Your task to perform on an android device: open sync settings in chrome Image 0: 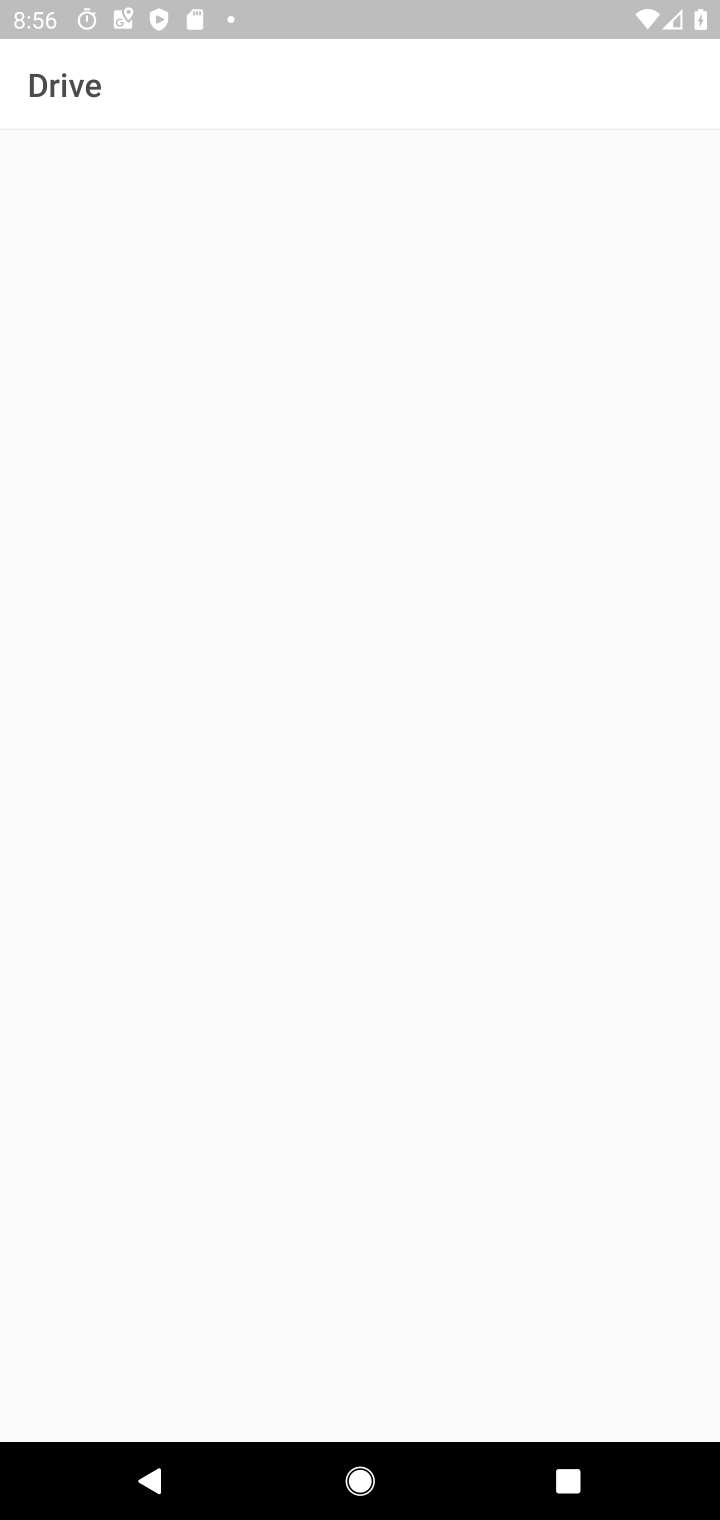
Step 0: press home button
Your task to perform on an android device: open sync settings in chrome Image 1: 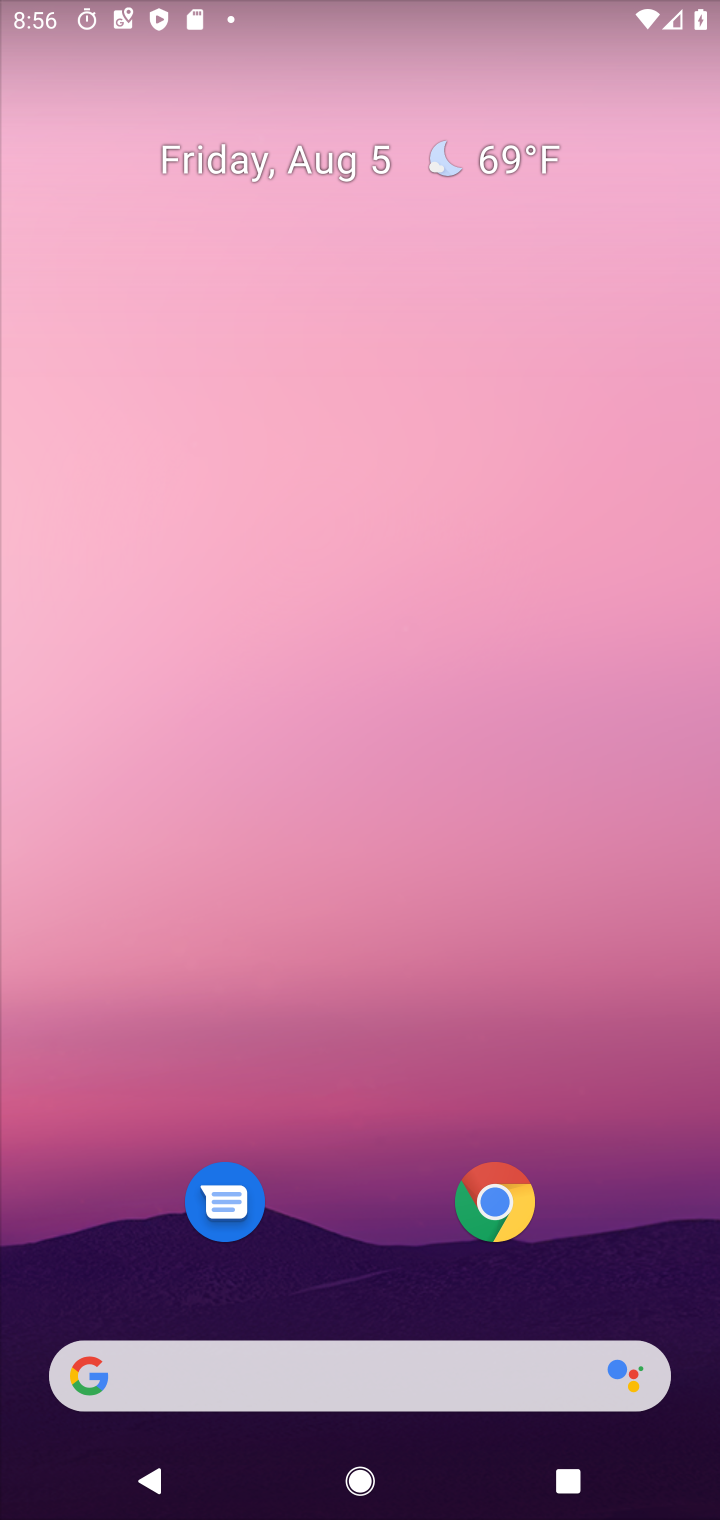
Step 1: click (524, 1193)
Your task to perform on an android device: open sync settings in chrome Image 2: 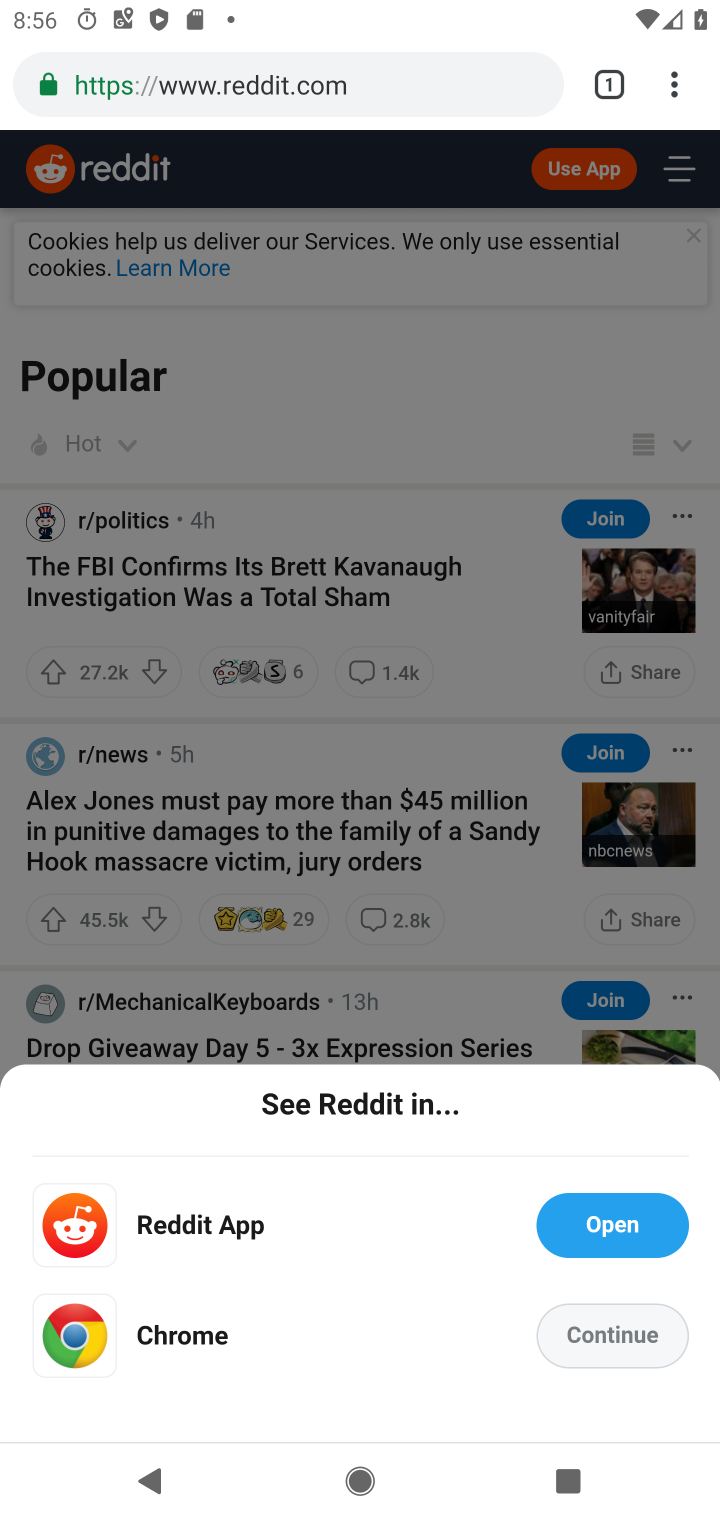
Step 2: click (686, 66)
Your task to perform on an android device: open sync settings in chrome Image 3: 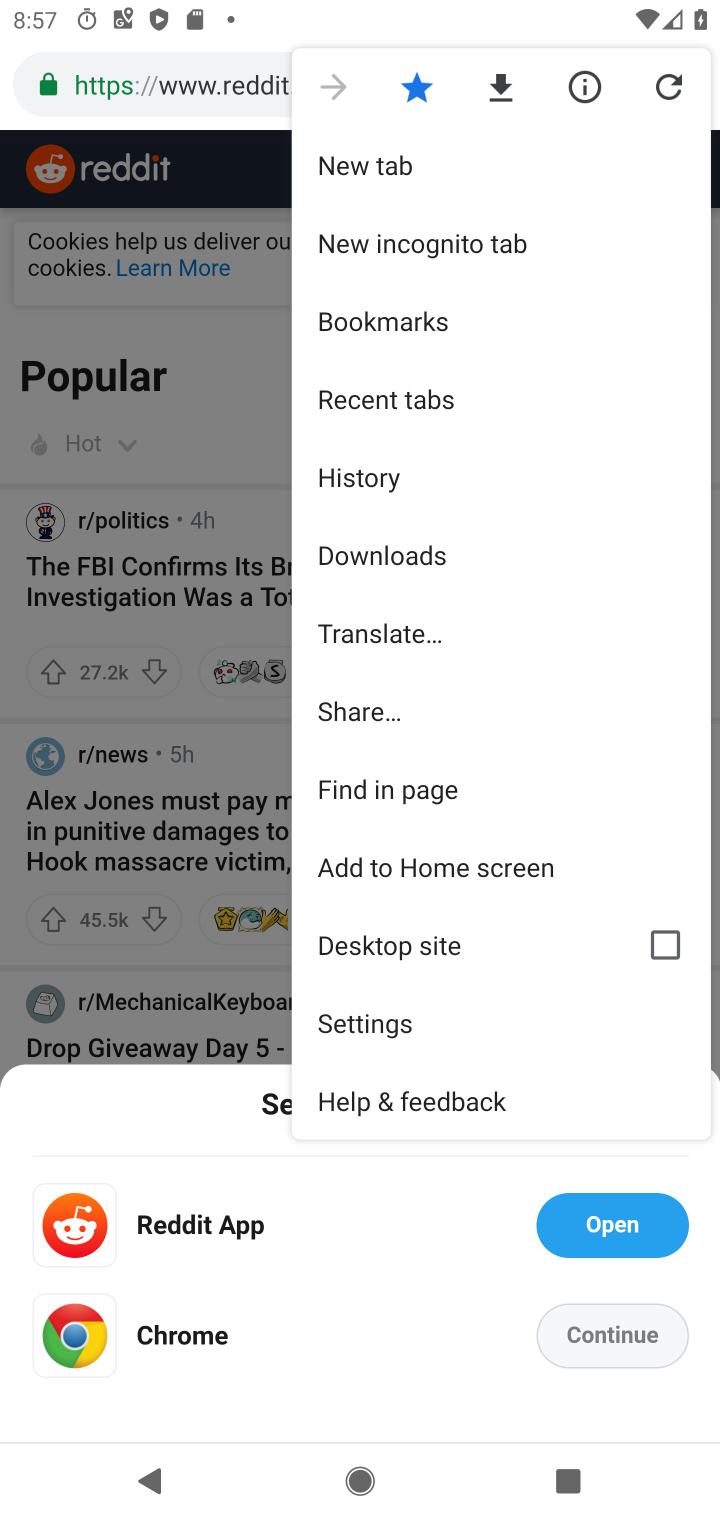
Step 3: click (372, 1009)
Your task to perform on an android device: open sync settings in chrome Image 4: 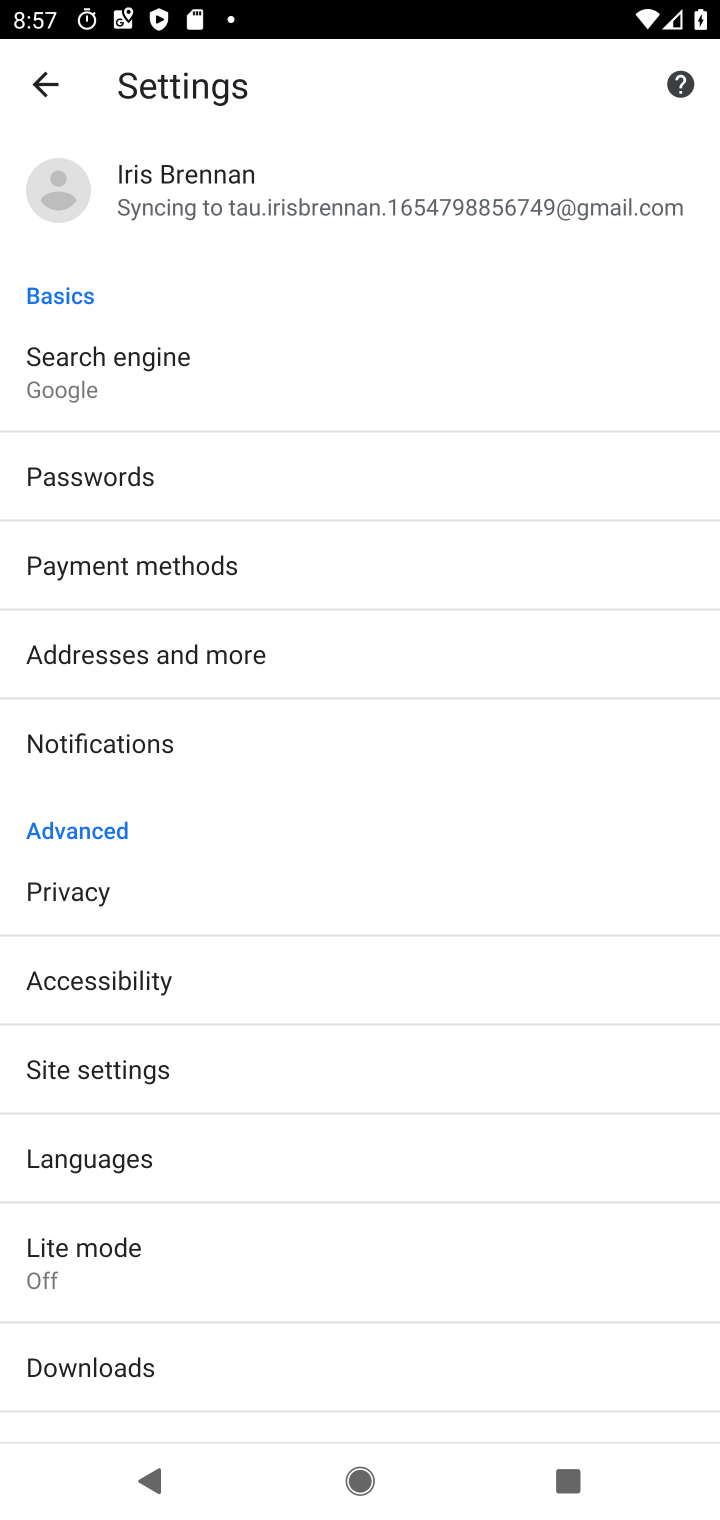
Step 4: click (190, 215)
Your task to perform on an android device: open sync settings in chrome Image 5: 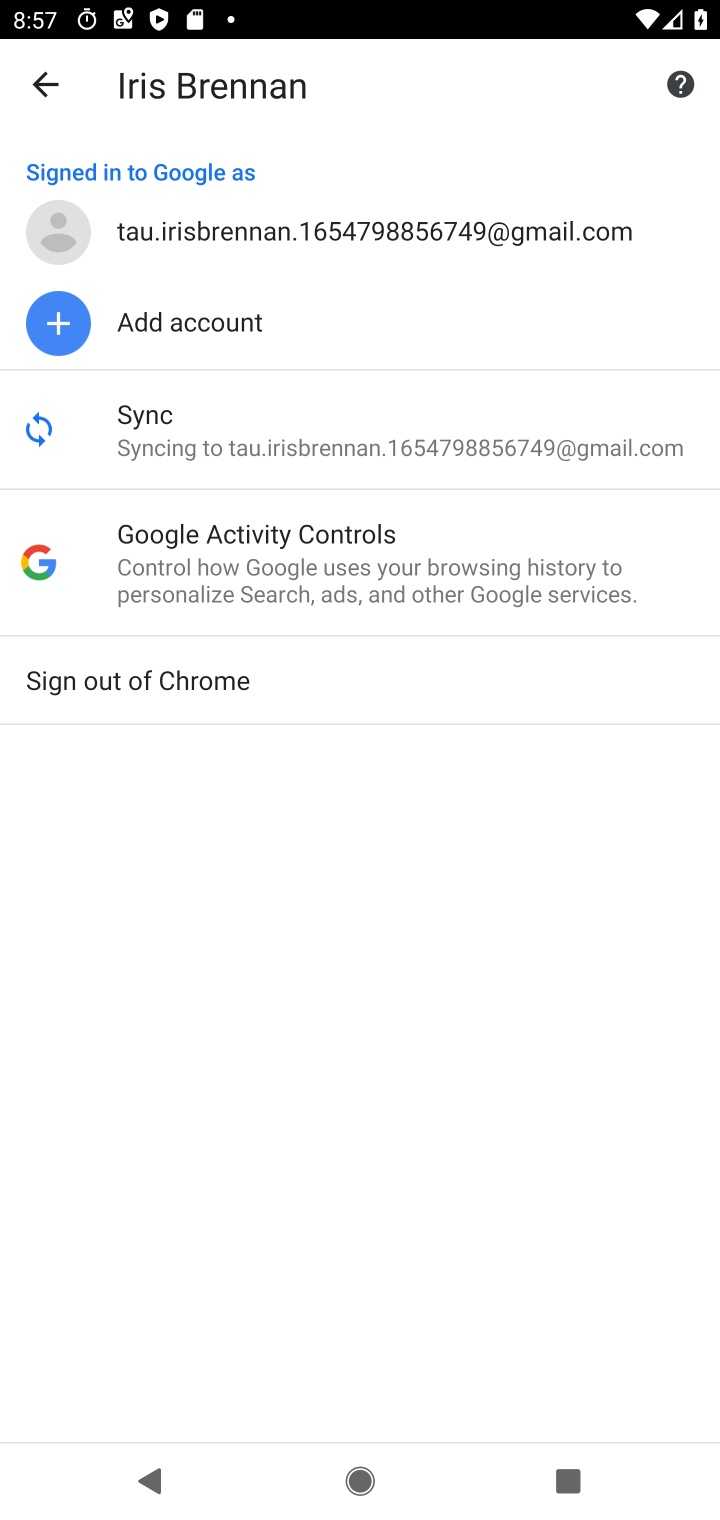
Step 5: click (197, 458)
Your task to perform on an android device: open sync settings in chrome Image 6: 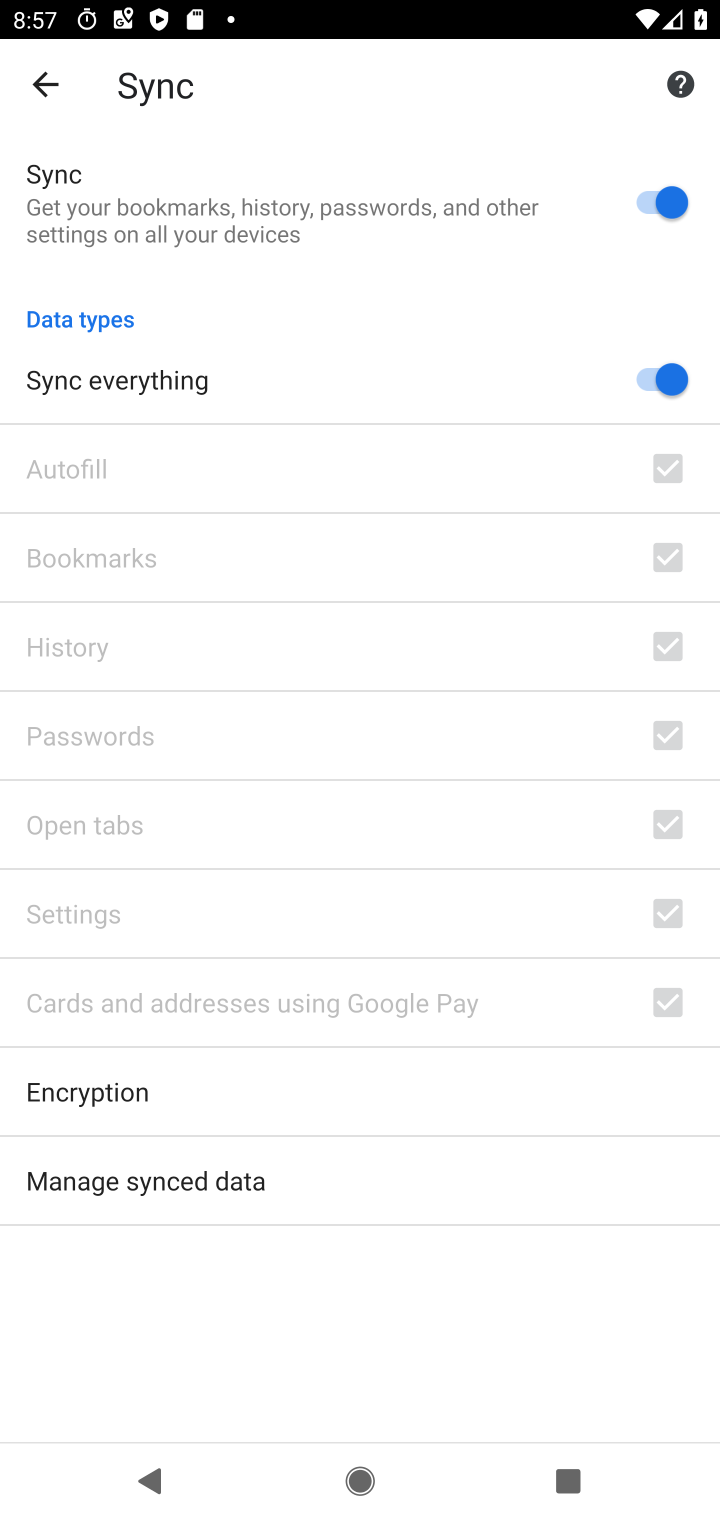
Step 6: task complete